Your task to perform on an android device: read, delete, or share a saved page in the chrome app Image 0: 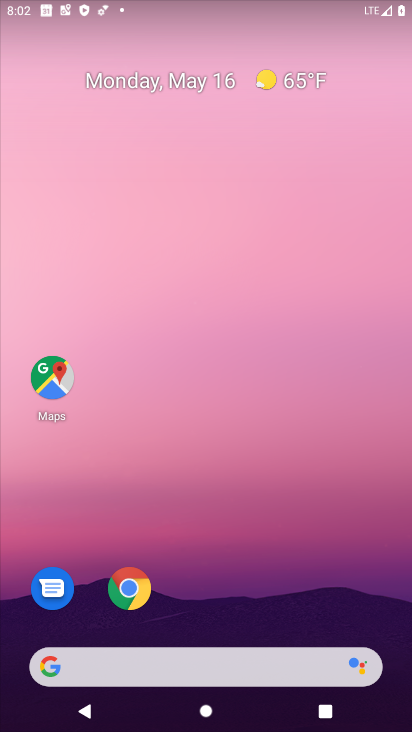
Step 0: drag from (231, 576) to (213, 32)
Your task to perform on an android device: read, delete, or share a saved page in the chrome app Image 1: 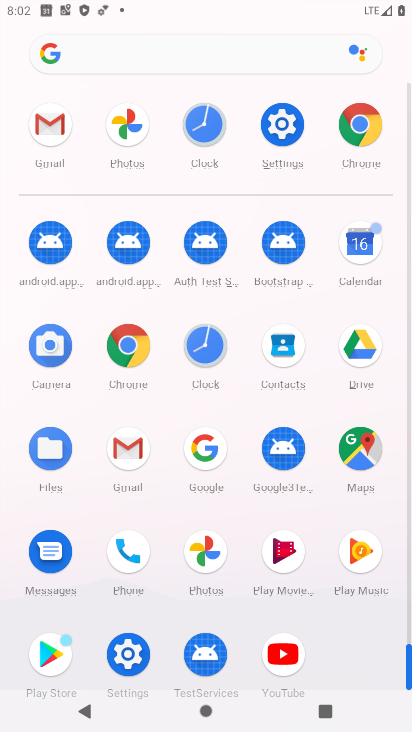
Step 1: click (126, 343)
Your task to perform on an android device: read, delete, or share a saved page in the chrome app Image 2: 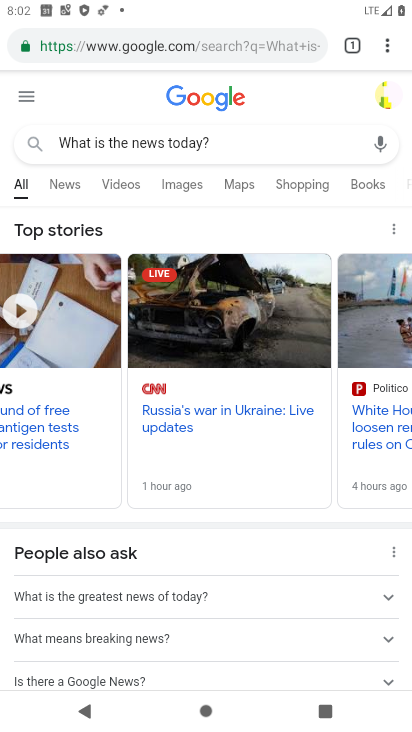
Step 2: task complete